Your task to perform on an android device: turn off location history Image 0: 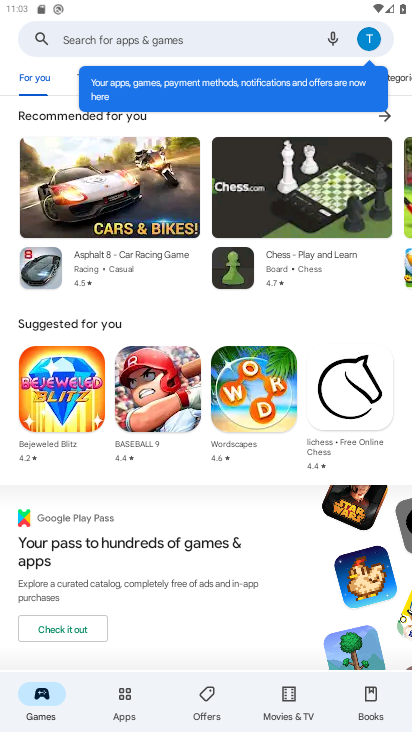
Step 0: press home button
Your task to perform on an android device: turn off location history Image 1: 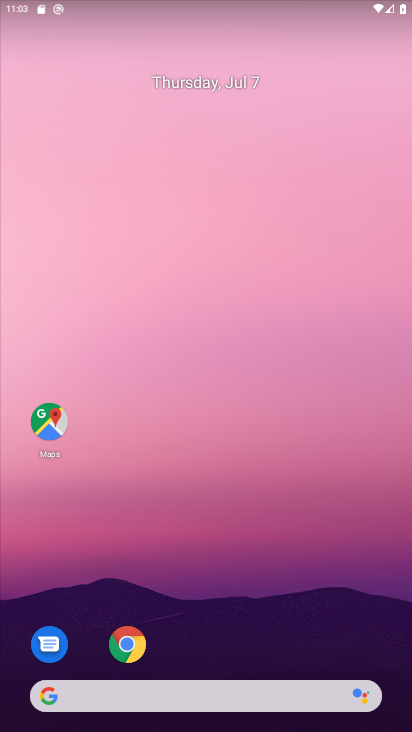
Step 1: drag from (247, 646) to (190, 157)
Your task to perform on an android device: turn off location history Image 2: 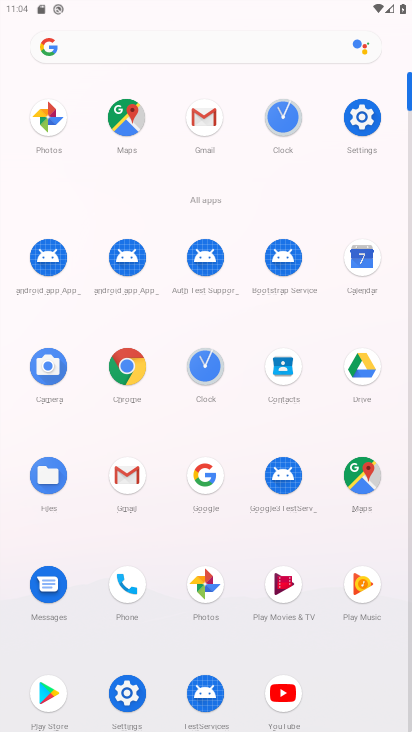
Step 2: click (360, 121)
Your task to perform on an android device: turn off location history Image 3: 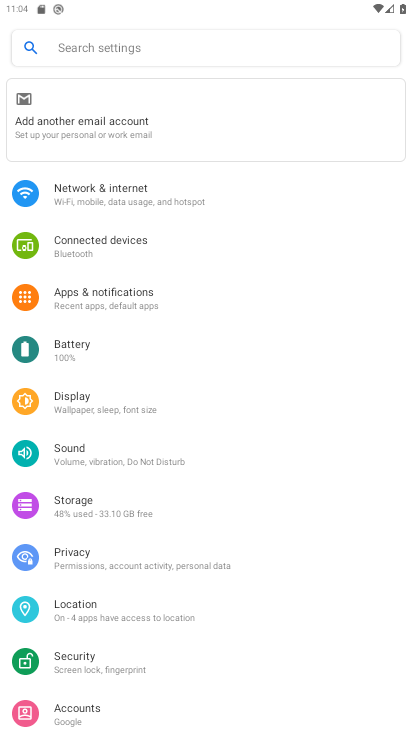
Step 3: click (74, 607)
Your task to perform on an android device: turn off location history Image 4: 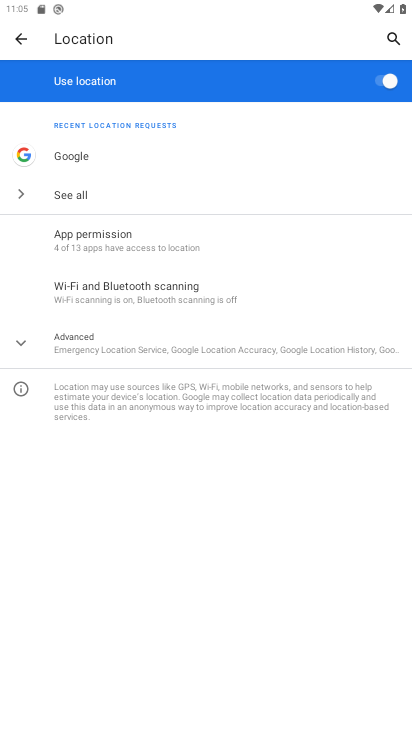
Step 4: click (102, 344)
Your task to perform on an android device: turn off location history Image 5: 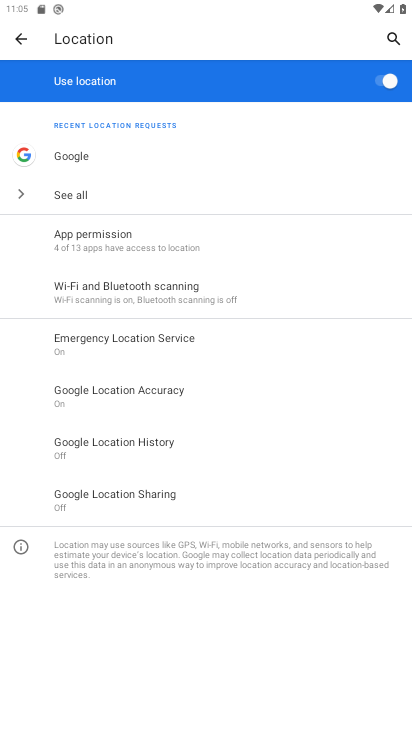
Step 5: click (142, 444)
Your task to perform on an android device: turn off location history Image 6: 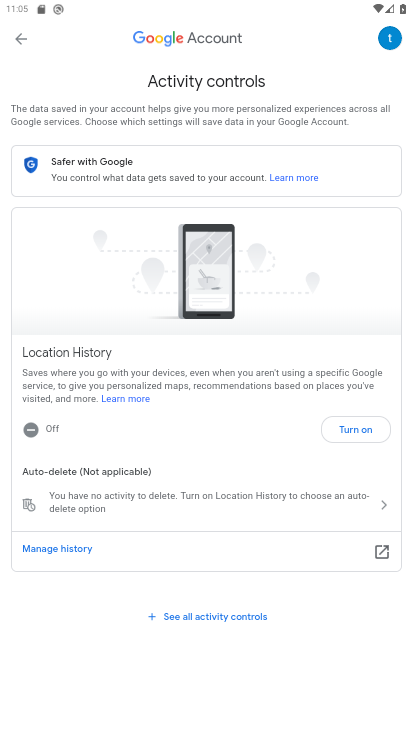
Step 6: task complete